Your task to perform on an android device: Open the map Image 0: 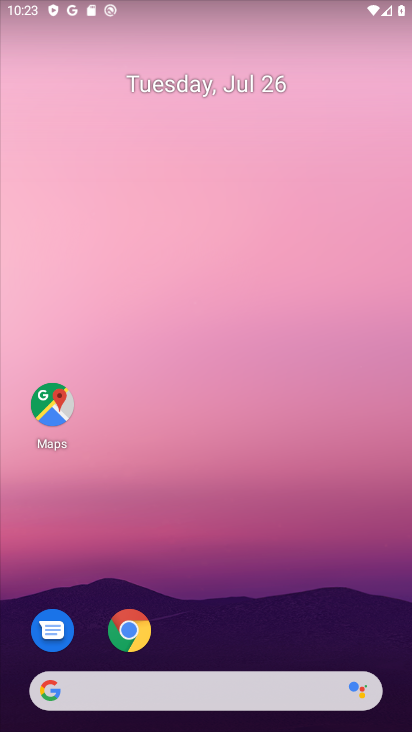
Step 0: click (50, 407)
Your task to perform on an android device: Open the map Image 1: 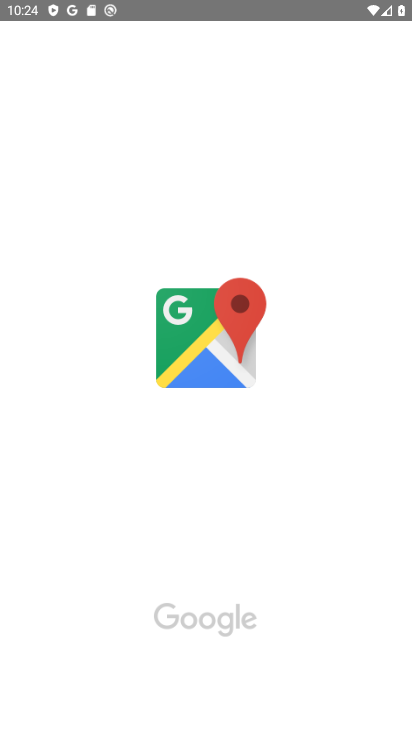
Step 1: task complete